Your task to perform on an android device: Search for Italian restaurants on Maps Image 0: 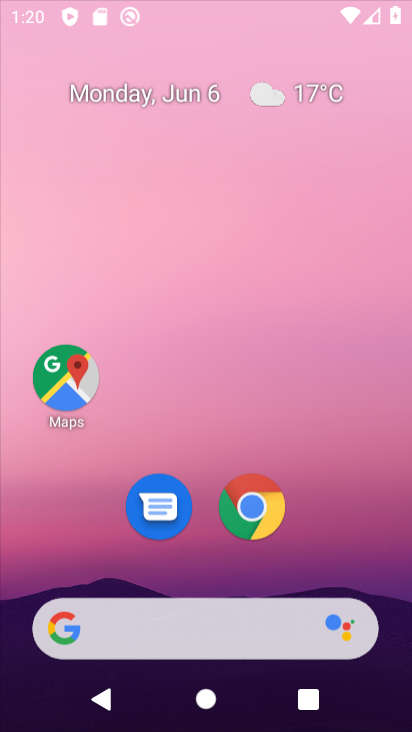
Step 0: drag from (342, 370) to (246, 7)
Your task to perform on an android device: Search for Italian restaurants on Maps Image 1: 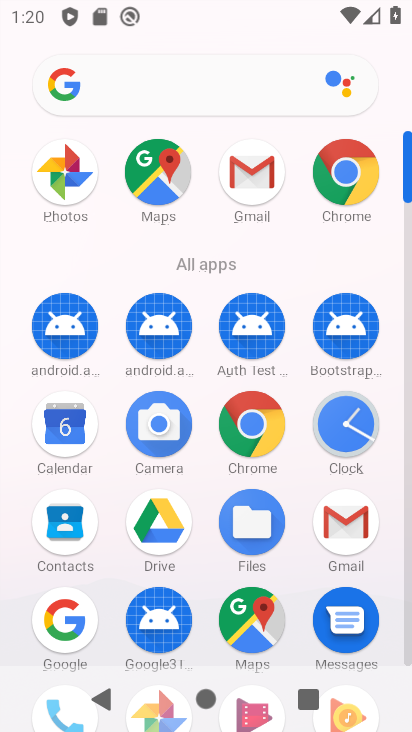
Step 1: drag from (11, 521) to (23, 217)
Your task to perform on an android device: Search for Italian restaurants on Maps Image 2: 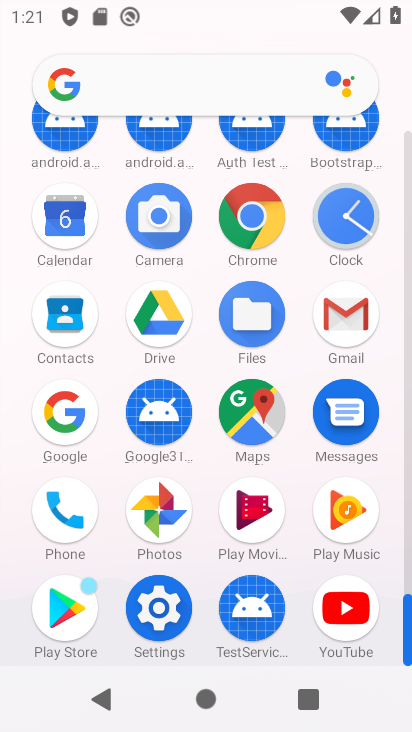
Step 2: click (253, 407)
Your task to perform on an android device: Search for Italian restaurants on Maps Image 3: 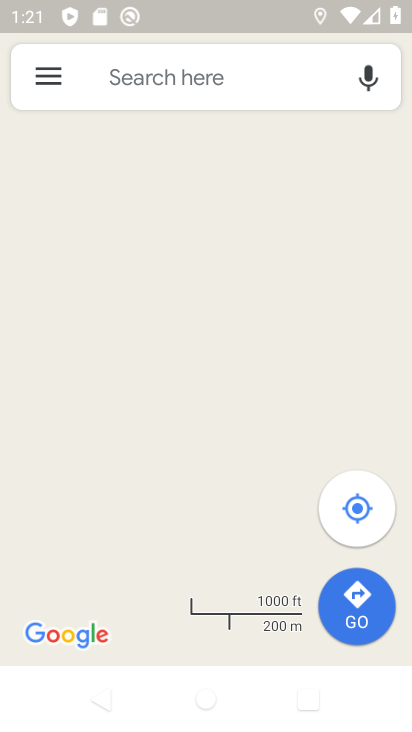
Step 3: click (268, 78)
Your task to perform on an android device: Search for Italian restaurants on Maps Image 4: 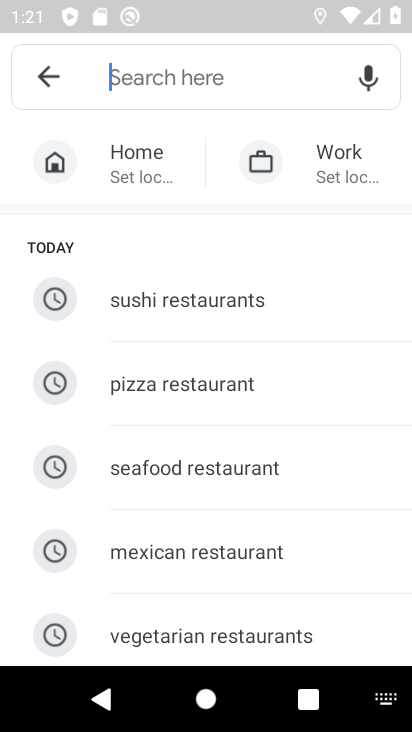
Step 4: drag from (235, 544) to (256, 315)
Your task to perform on an android device: Search for Italian restaurants on Maps Image 5: 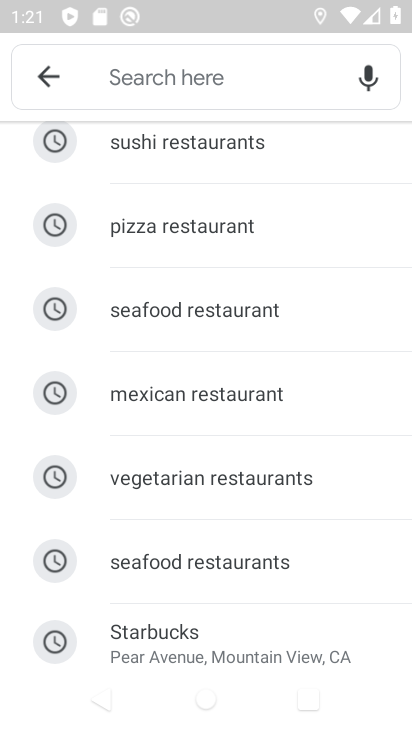
Step 5: drag from (217, 576) to (248, 219)
Your task to perform on an android device: Search for Italian restaurants on Maps Image 6: 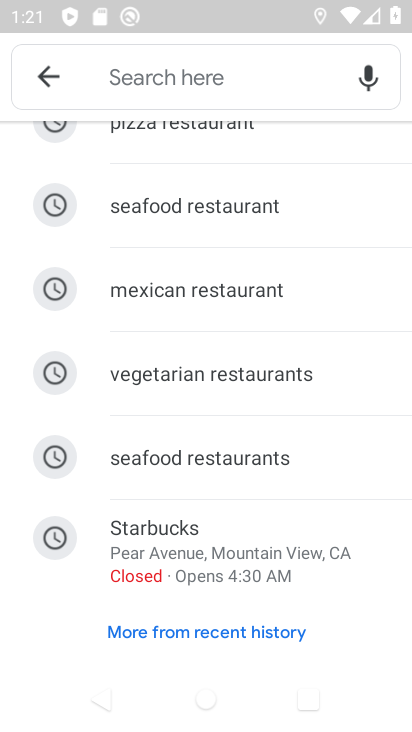
Step 6: click (194, 73)
Your task to perform on an android device: Search for Italian restaurants on Maps Image 7: 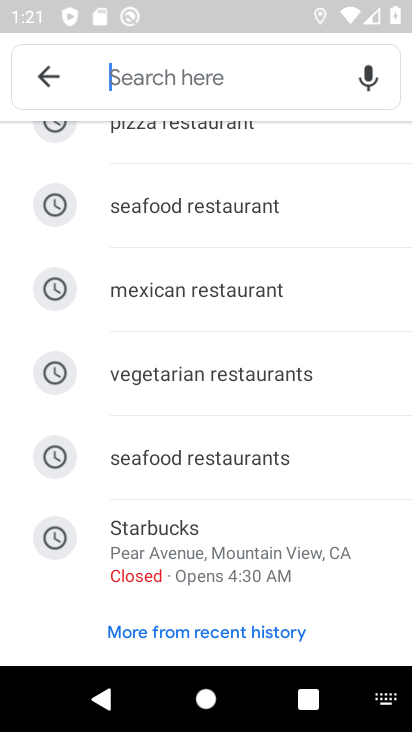
Step 7: type " Italian restaurants"
Your task to perform on an android device: Search for Italian restaurants on Maps Image 8: 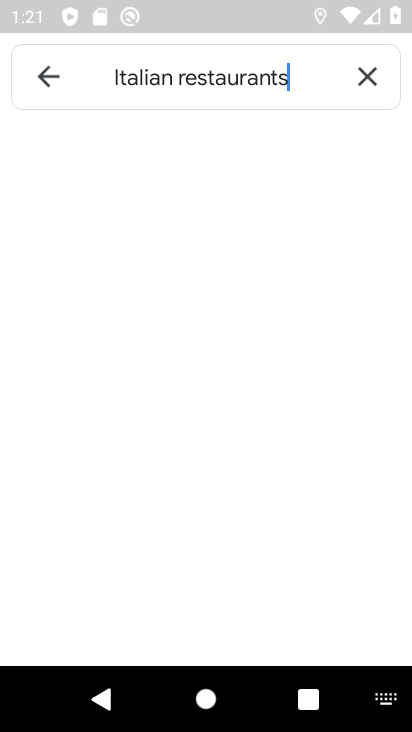
Step 8: type ""
Your task to perform on an android device: Search for Italian restaurants on Maps Image 9: 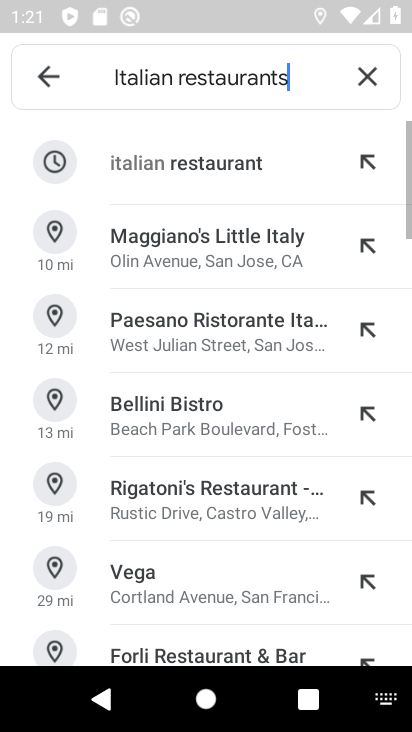
Step 9: click (197, 164)
Your task to perform on an android device: Search for Italian restaurants on Maps Image 10: 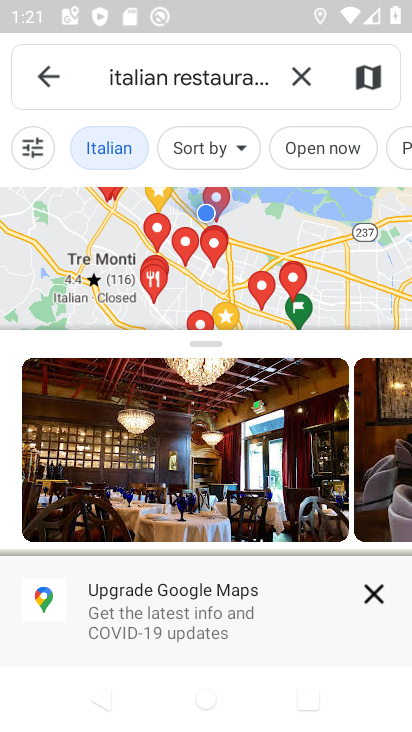
Step 10: task complete